Your task to perform on an android device: check battery use Image 0: 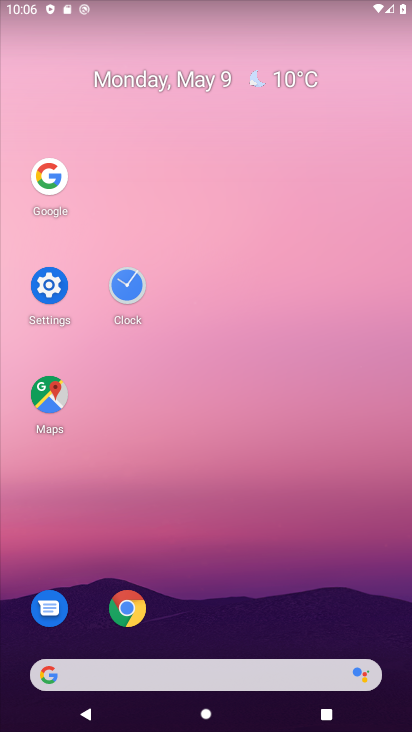
Step 0: click (38, 279)
Your task to perform on an android device: check battery use Image 1: 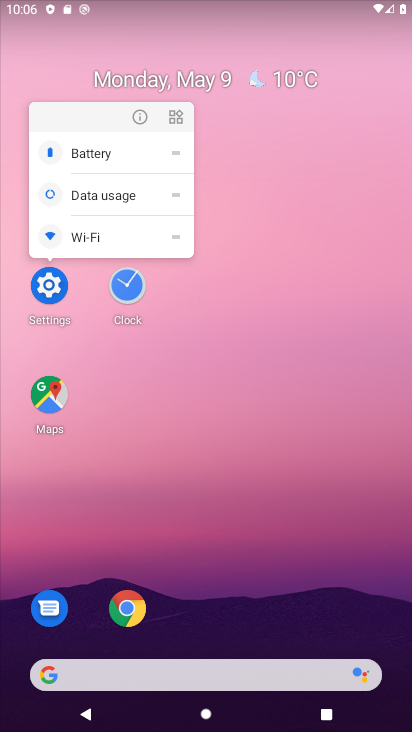
Step 1: click (38, 279)
Your task to perform on an android device: check battery use Image 2: 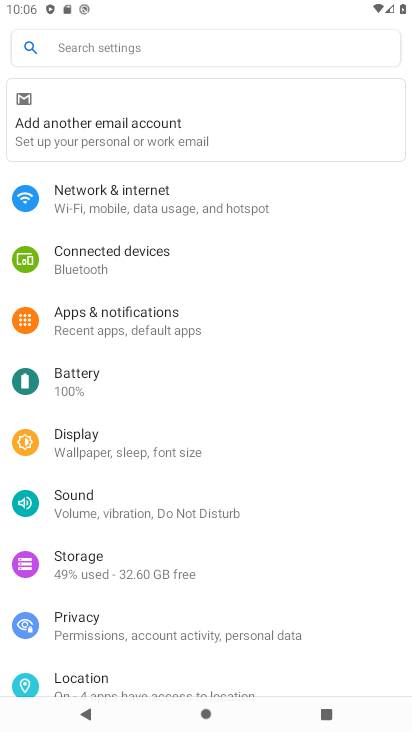
Step 2: click (149, 383)
Your task to perform on an android device: check battery use Image 3: 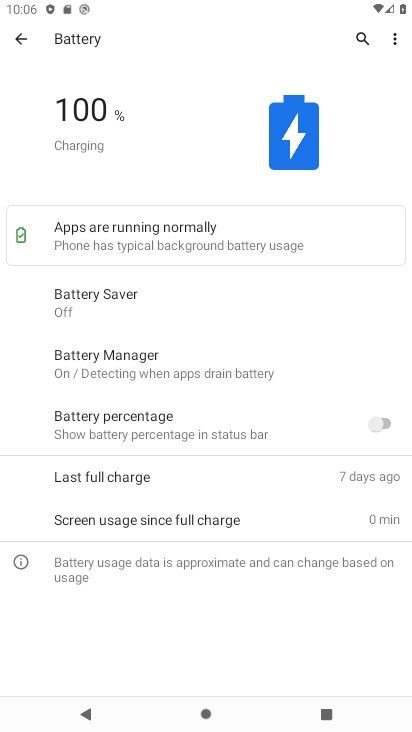
Step 3: click (398, 44)
Your task to perform on an android device: check battery use Image 4: 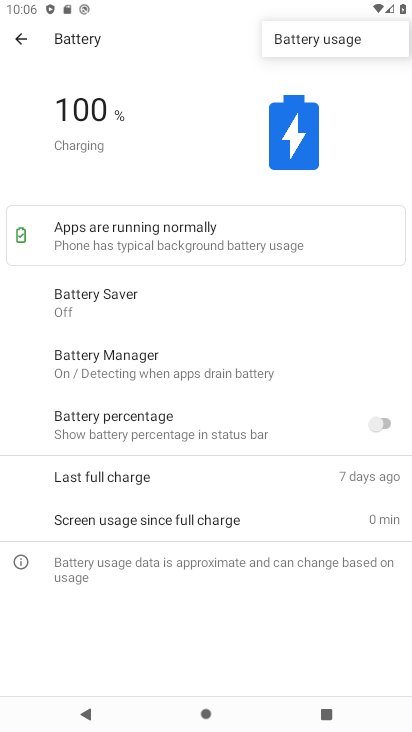
Step 4: click (326, 31)
Your task to perform on an android device: check battery use Image 5: 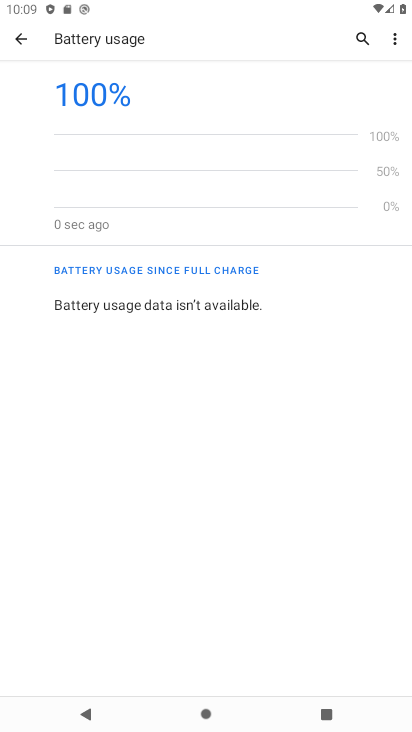
Step 5: task complete